Your task to perform on an android device: Show me productivity apps on the Play Store Image 0: 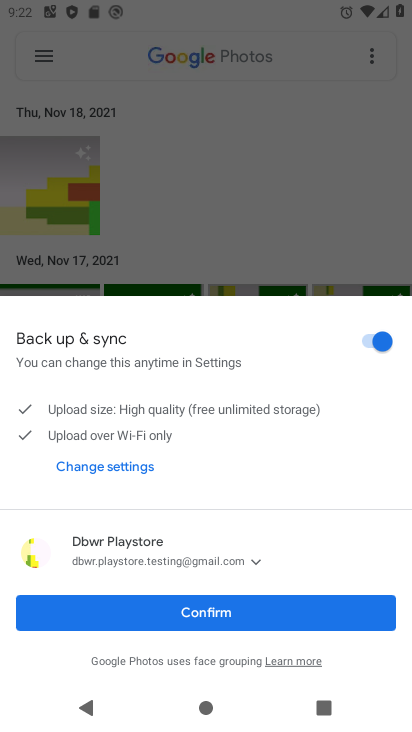
Step 0: press home button
Your task to perform on an android device: Show me productivity apps on the Play Store Image 1: 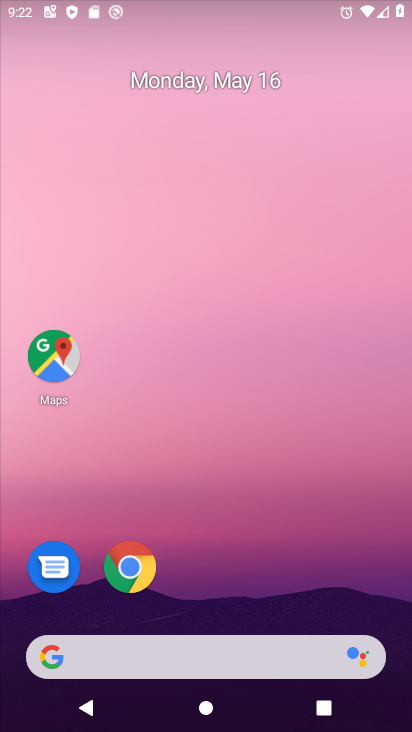
Step 1: drag from (259, 599) to (272, 229)
Your task to perform on an android device: Show me productivity apps on the Play Store Image 2: 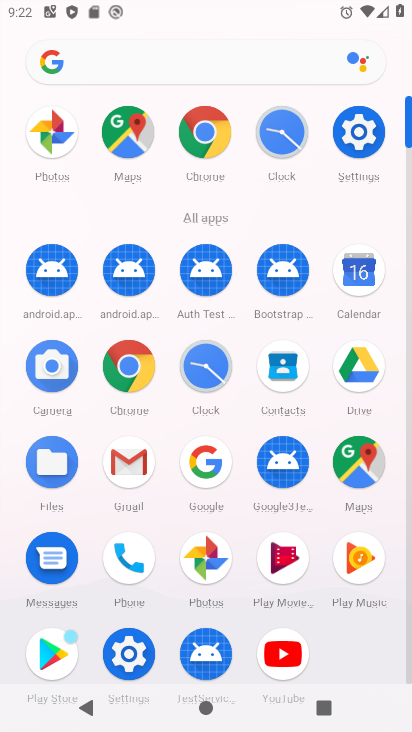
Step 2: click (53, 659)
Your task to perform on an android device: Show me productivity apps on the Play Store Image 3: 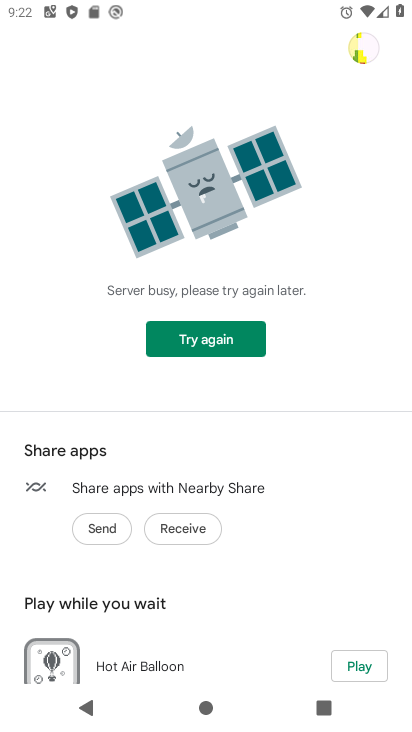
Step 3: task complete